Your task to perform on an android device: Open eBay Image 0: 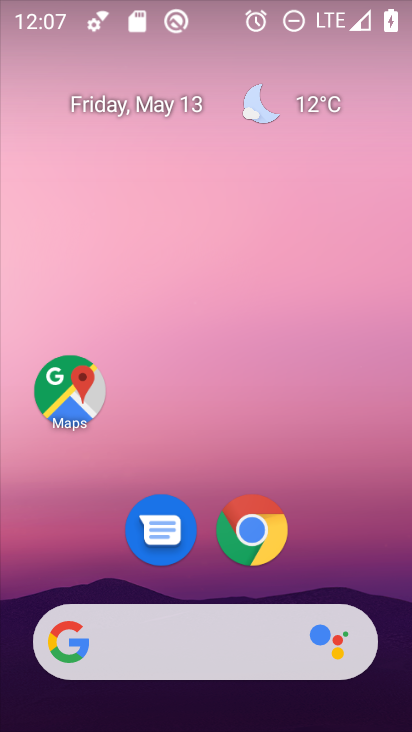
Step 0: press home button
Your task to perform on an android device: Open eBay Image 1: 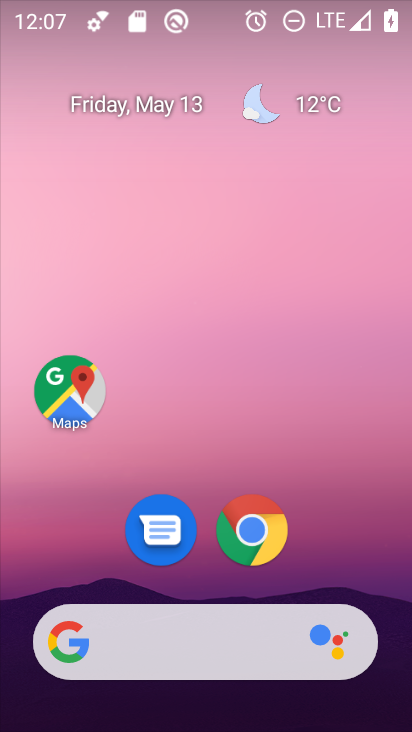
Step 1: click (256, 542)
Your task to perform on an android device: Open eBay Image 2: 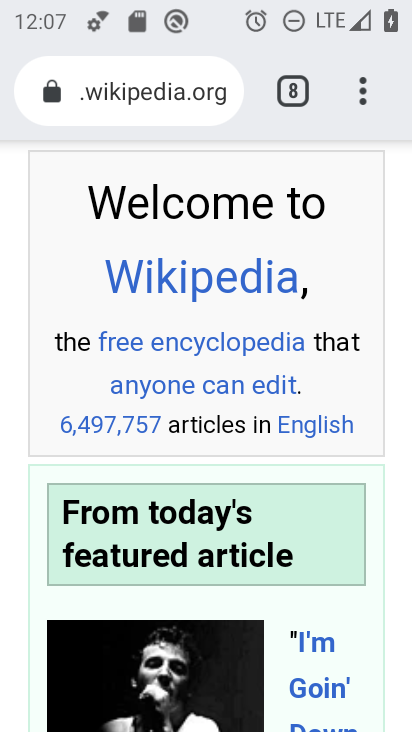
Step 2: drag from (358, 100) to (269, 176)
Your task to perform on an android device: Open eBay Image 3: 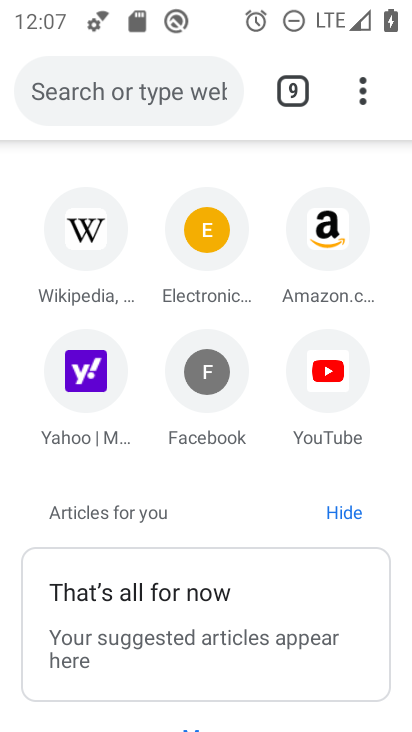
Step 3: click (158, 95)
Your task to perform on an android device: Open eBay Image 4: 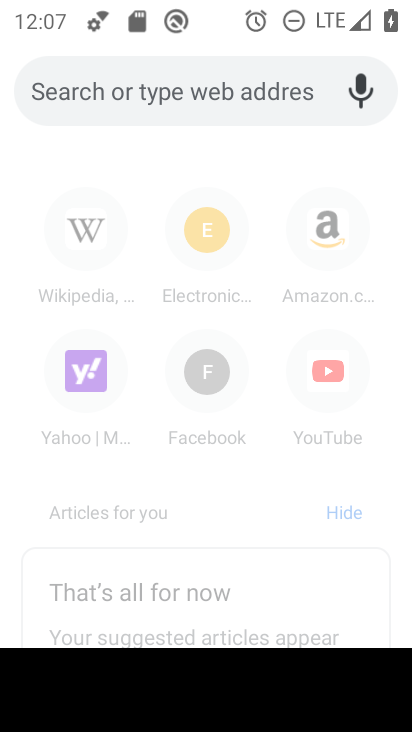
Step 4: type "ebay"
Your task to perform on an android device: Open eBay Image 5: 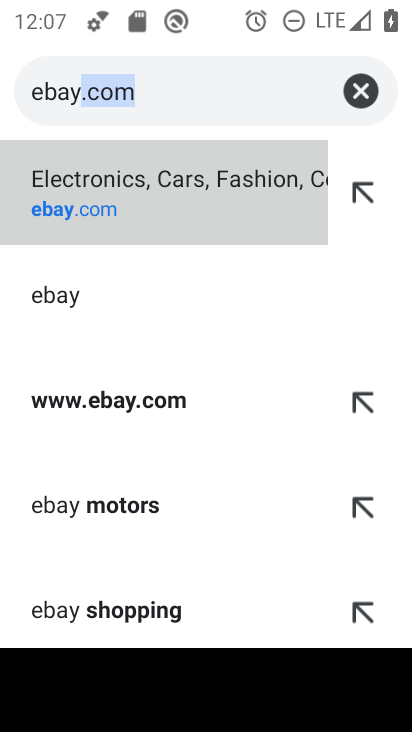
Step 5: click (179, 220)
Your task to perform on an android device: Open eBay Image 6: 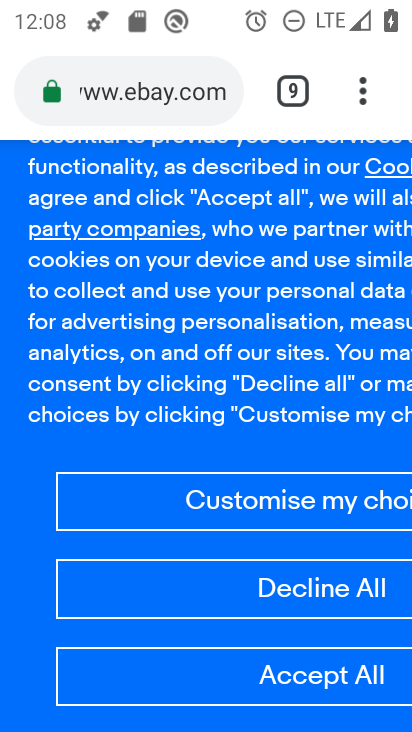
Step 6: task complete